Your task to perform on an android device: set the stopwatch Image 0: 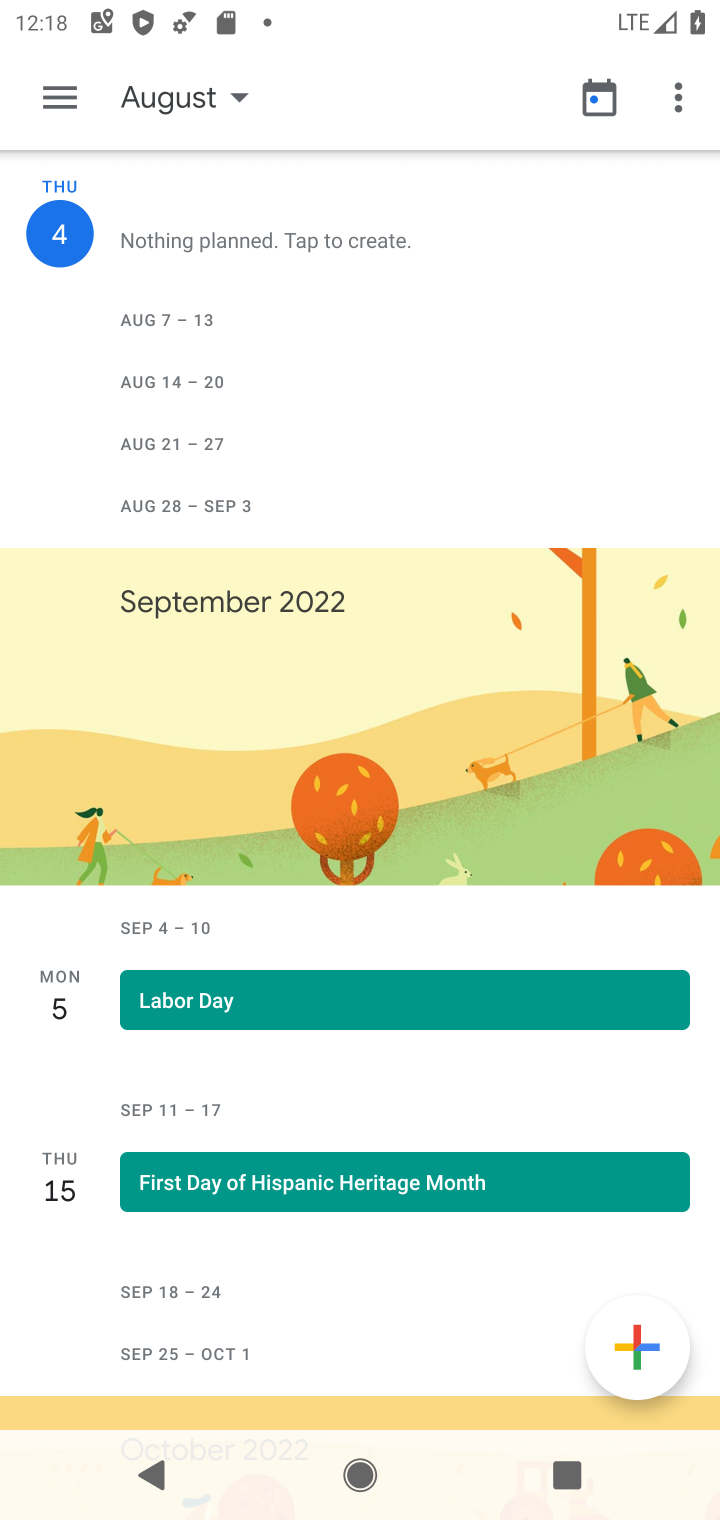
Step 0: press home button
Your task to perform on an android device: set the stopwatch Image 1: 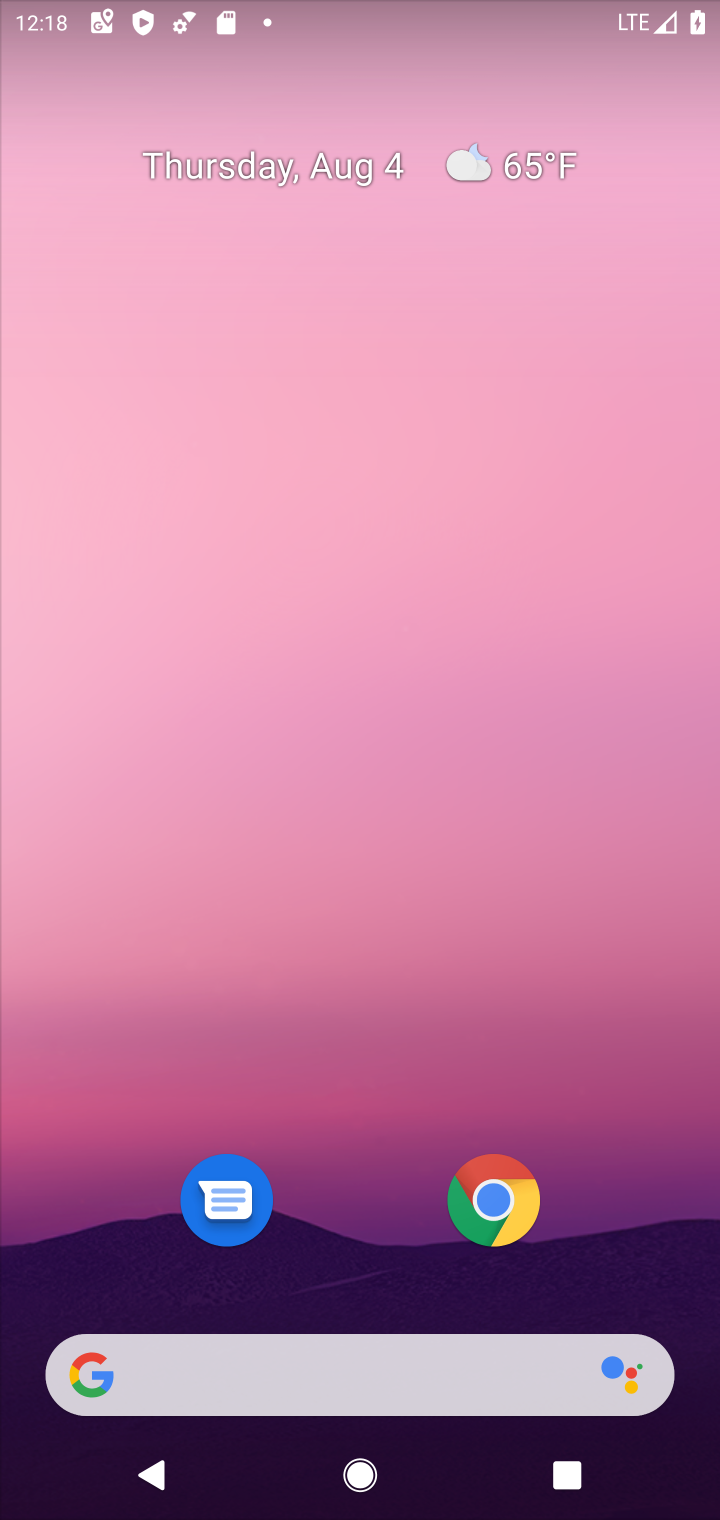
Step 1: drag from (405, 1266) to (346, 983)
Your task to perform on an android device: set the stopwatch Image 2: 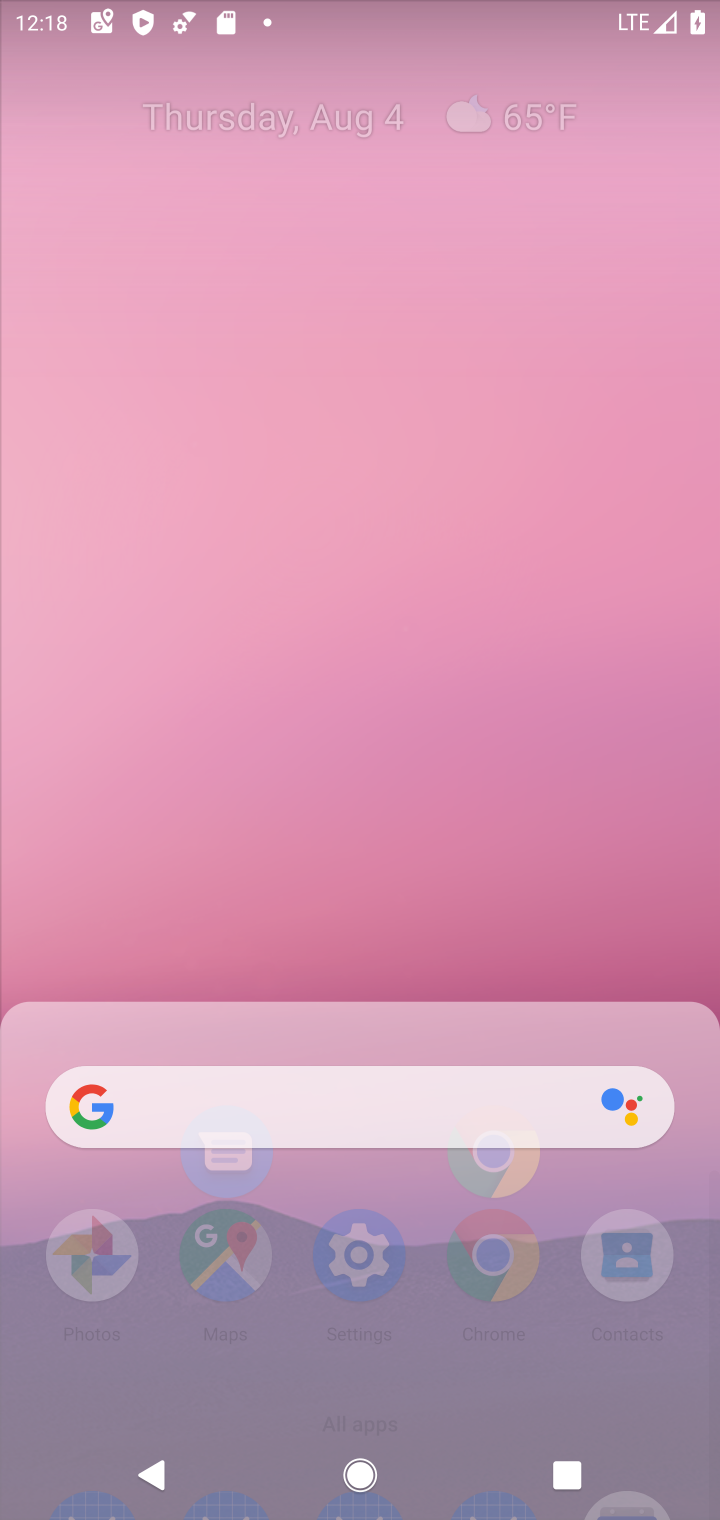
Step 2: drag from (336, 1146) to (345, 124)
Your task to perform on an android device: set the stopwatch Image 3: 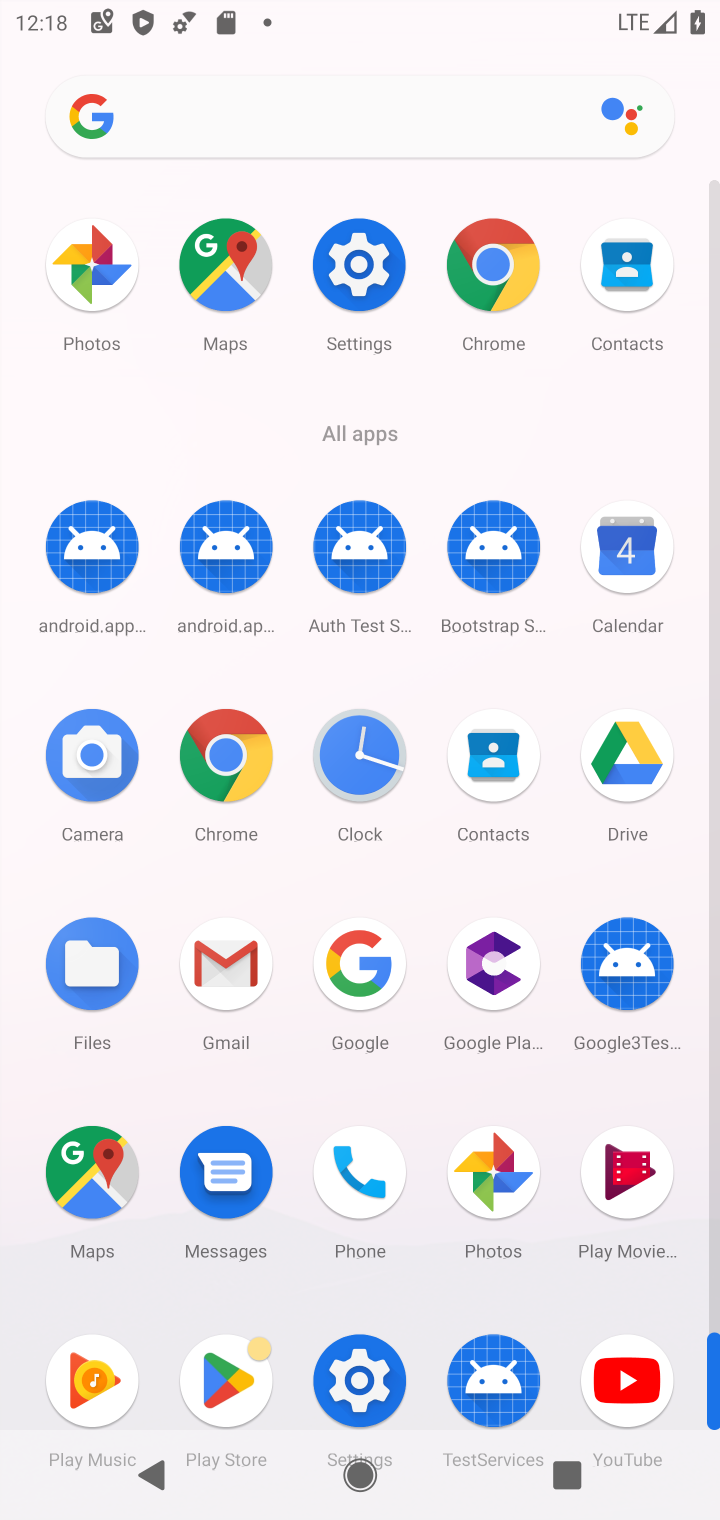
Step 3: click (370, 802)
Your task to perform on an android device: set the stopwatch Image 4: 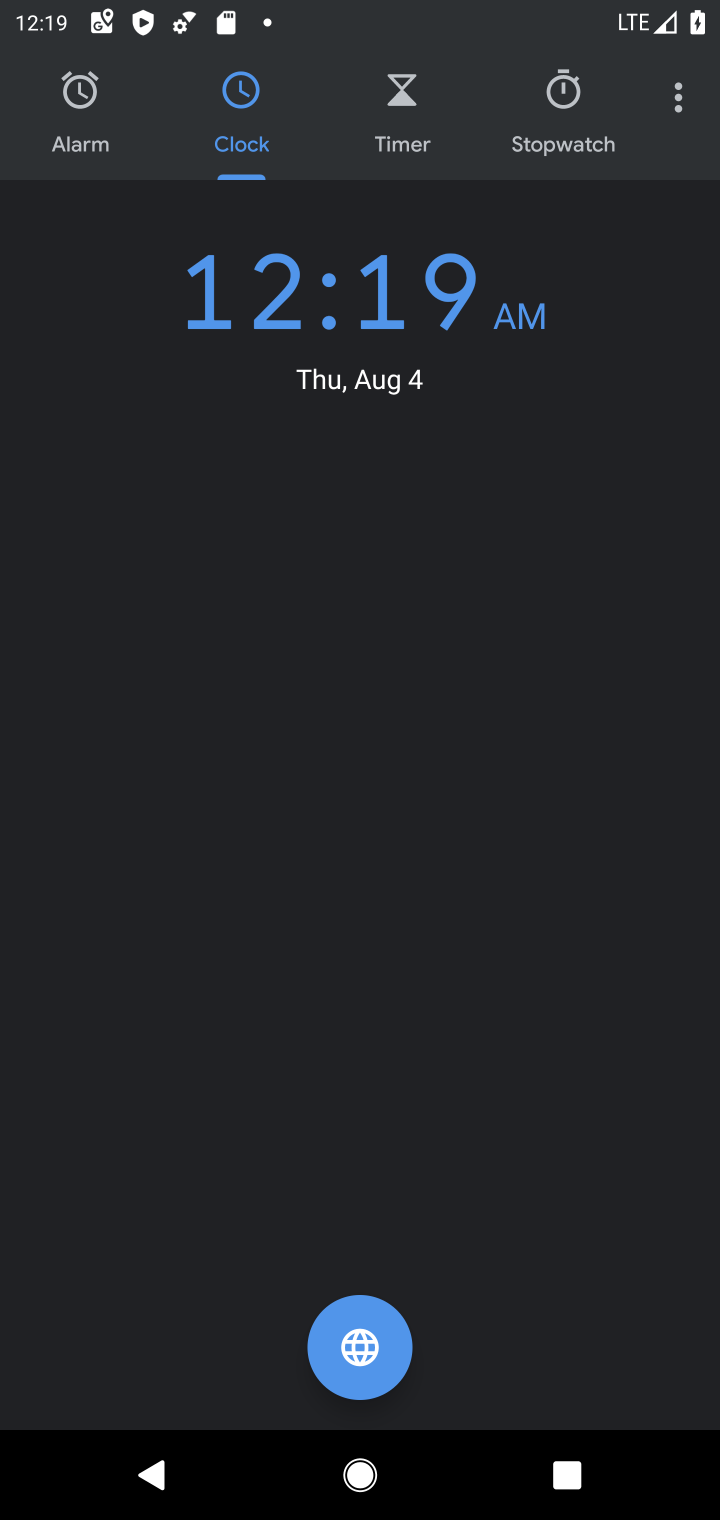
Step 4: click (581, 103)
Your task to perform on an android device: set the stopwatch Image 5: 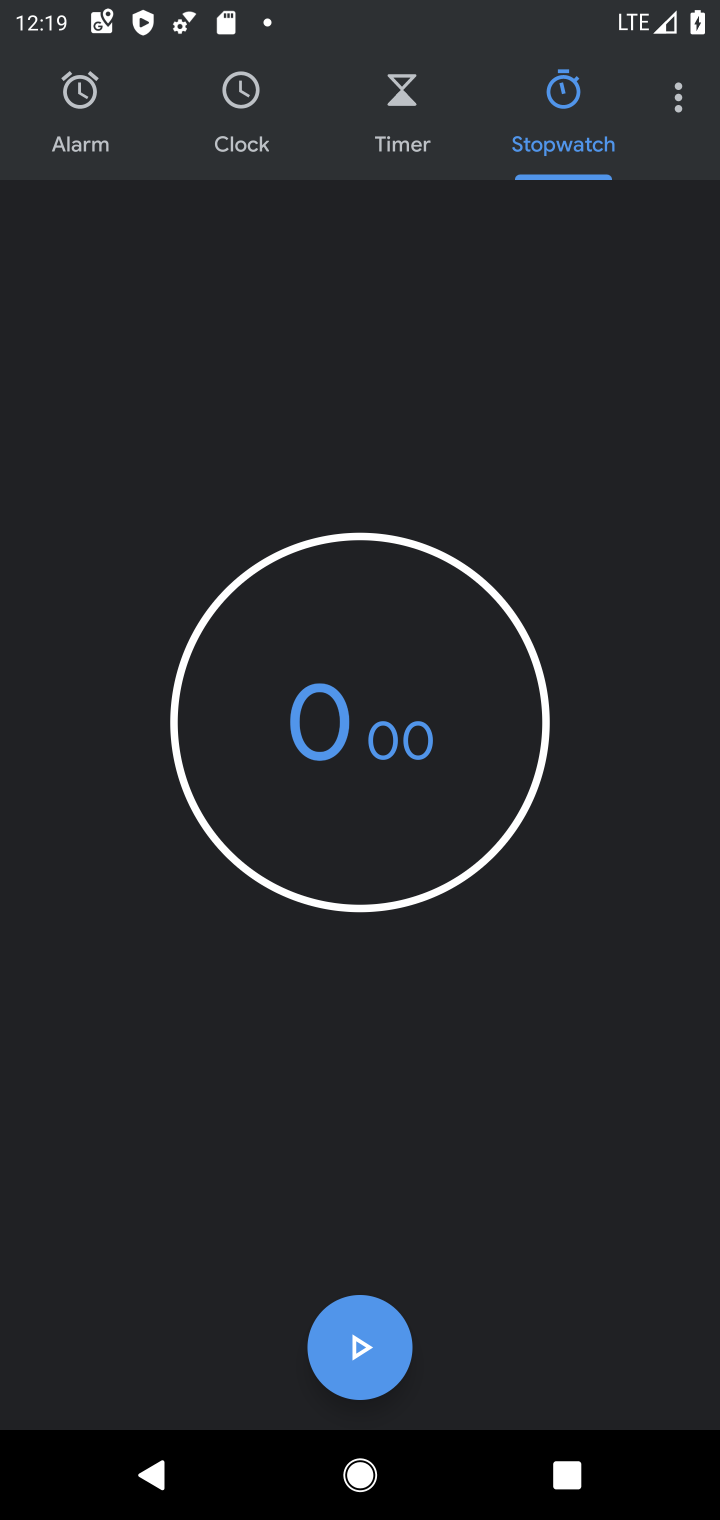
Step 5: task complete